Your task to perform on an android device: stop showing notifications on the lock screen Image 0: 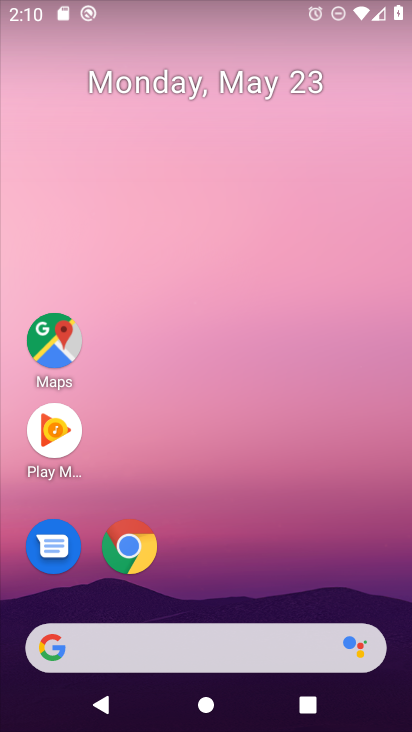
Step 0: drag from (195, 658) to (194, 200)
Your task to perform on an android device: stop showing notifications on the lock screen Image 1: 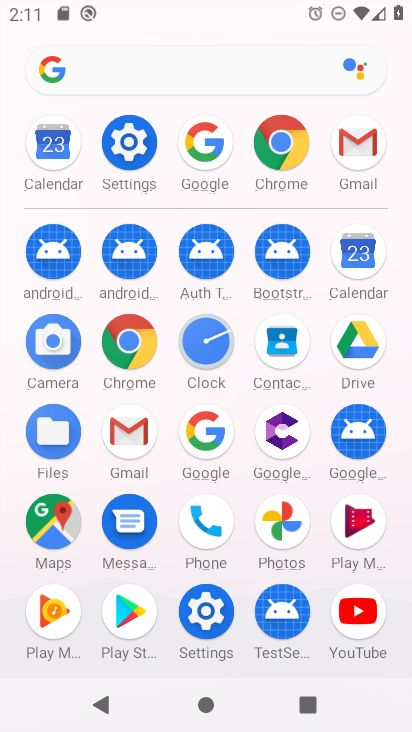
Step 1: click (134, 156)
Your task to perform on an android device: stop showing notifications on the lock screen Image 2: 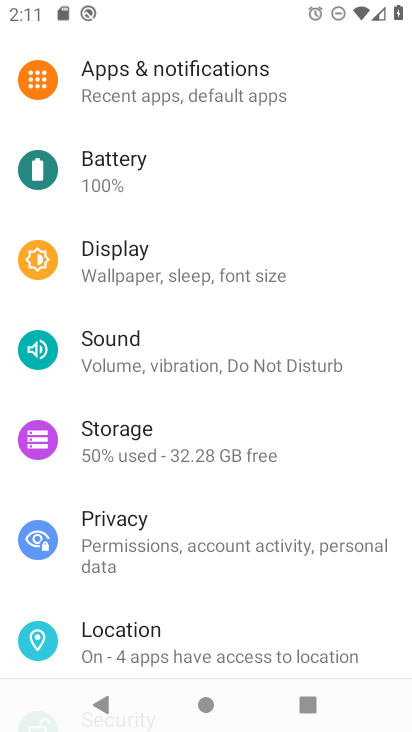
Step 2: click (253, 84)
Your task to perform on an android device: stop showing notifications on the lock screen Image 3: 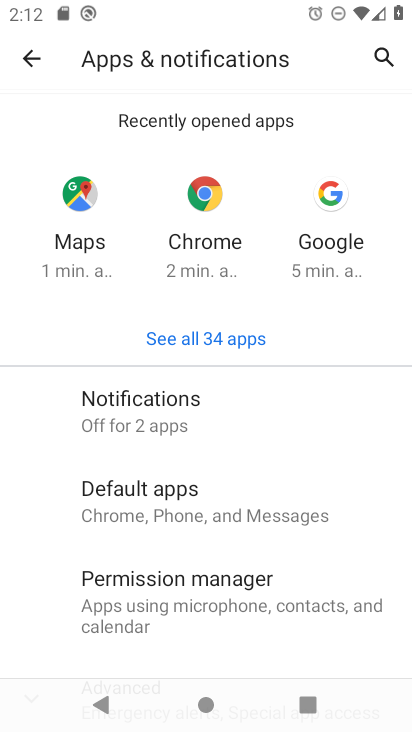
Step 3: click (273, 404)
Your task to perform on an android device: stop showing notifications on the lock screen Image 4: 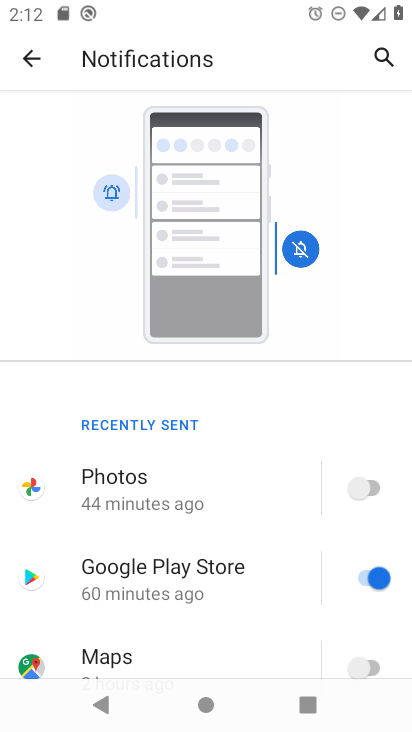
Step 4: drag from (135, 589) to (160, 7)
Your task to perform on an android device: stop showing notifications on the lock screen Image 5: 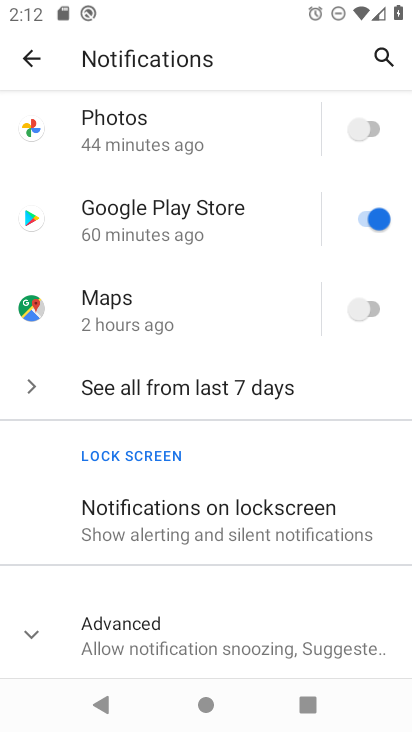
Step 5: click (287, 532)
Your task to perform on an android device: stop showing notifications on the lock screen Image 6: 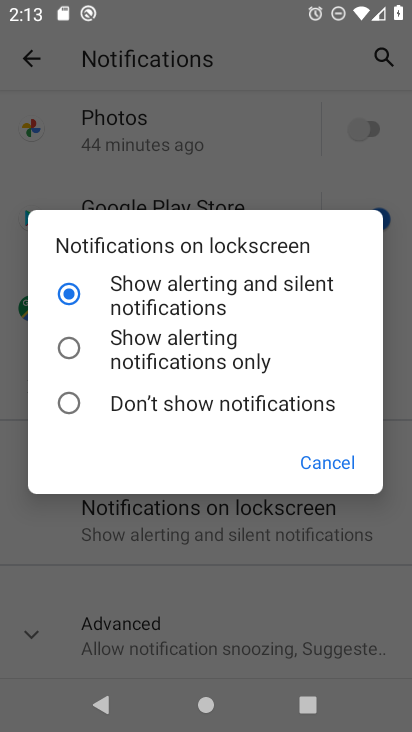
Step 6: click (248, 407)
Your task to perform on an android device: stop showing notifications on the lock screen Image 7: 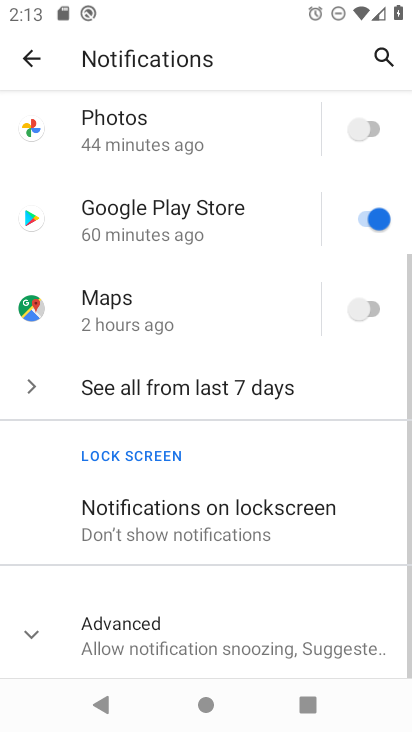
Step 7: task complete